Your task to perform on an android device: toggle show notifications on the lock screen Image 0: 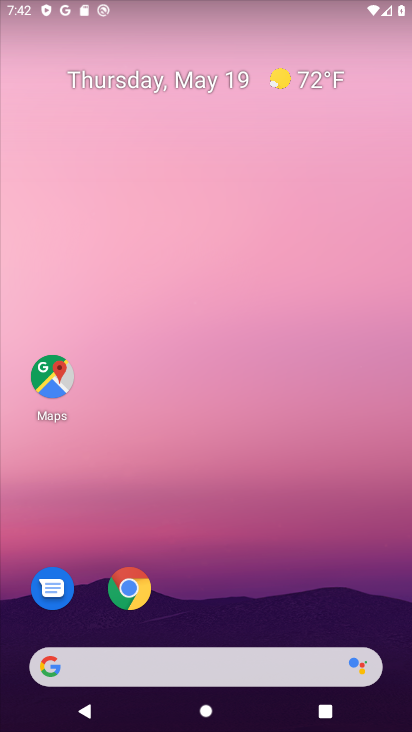
Step 0: drag from (332, 580) to (354, 3)
Your task to perform on an android device: toggle show notifications on the lock screen Image 1: 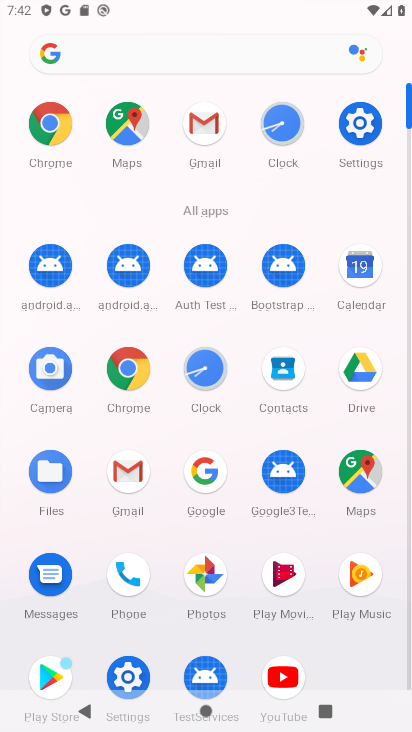
Step 1: click (360, 137)
Your task to perform on an android device: toggle show notifications on the lock screen Image 2: 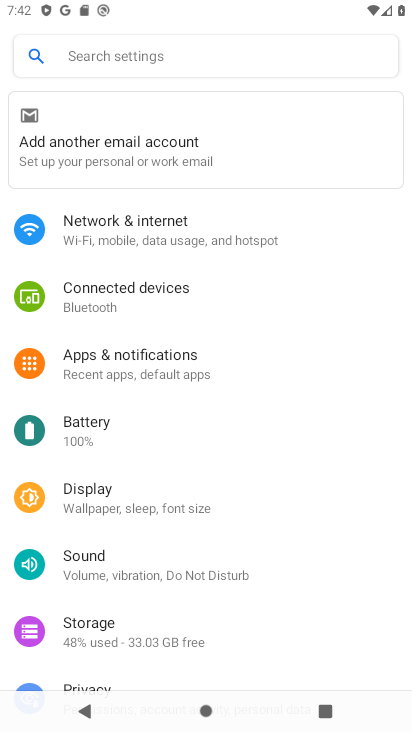
Step 2: click (124, 344)
Your task to perform on an android device: toggle show notifications on the lock screen Image 3: 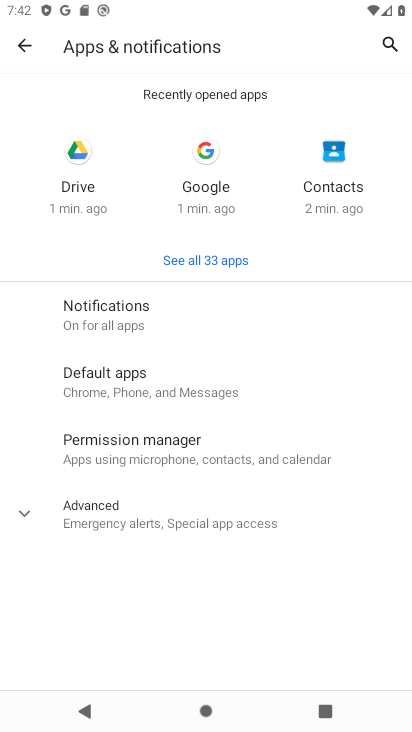
Step 3: click (125, 307)
Your task to perform on an android device: toggle show notifications on the lock screen Image 4: 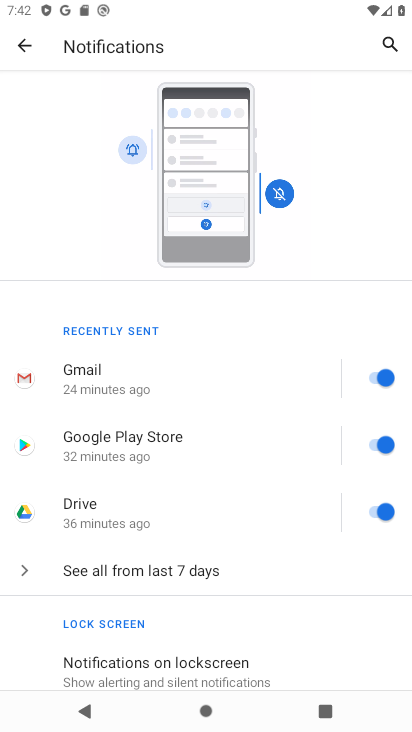
Step 4: click (223, 668)
Your task to perform on an android device: toggle show notifications on the lock screen Image 5: 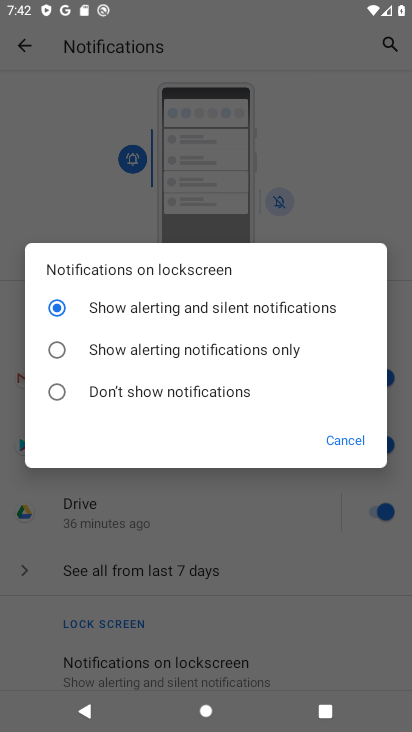
Step 5: click (184, 393)
Your task to perform on an android device: toggle show notifications on the lock screen Image 6: 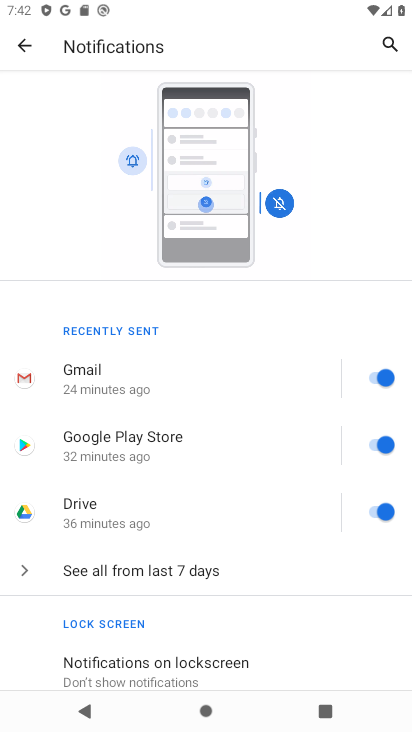
Step 6: task complete